Your task to perform on an android device: uninstall "Microsoft Authenticator" Image 0: 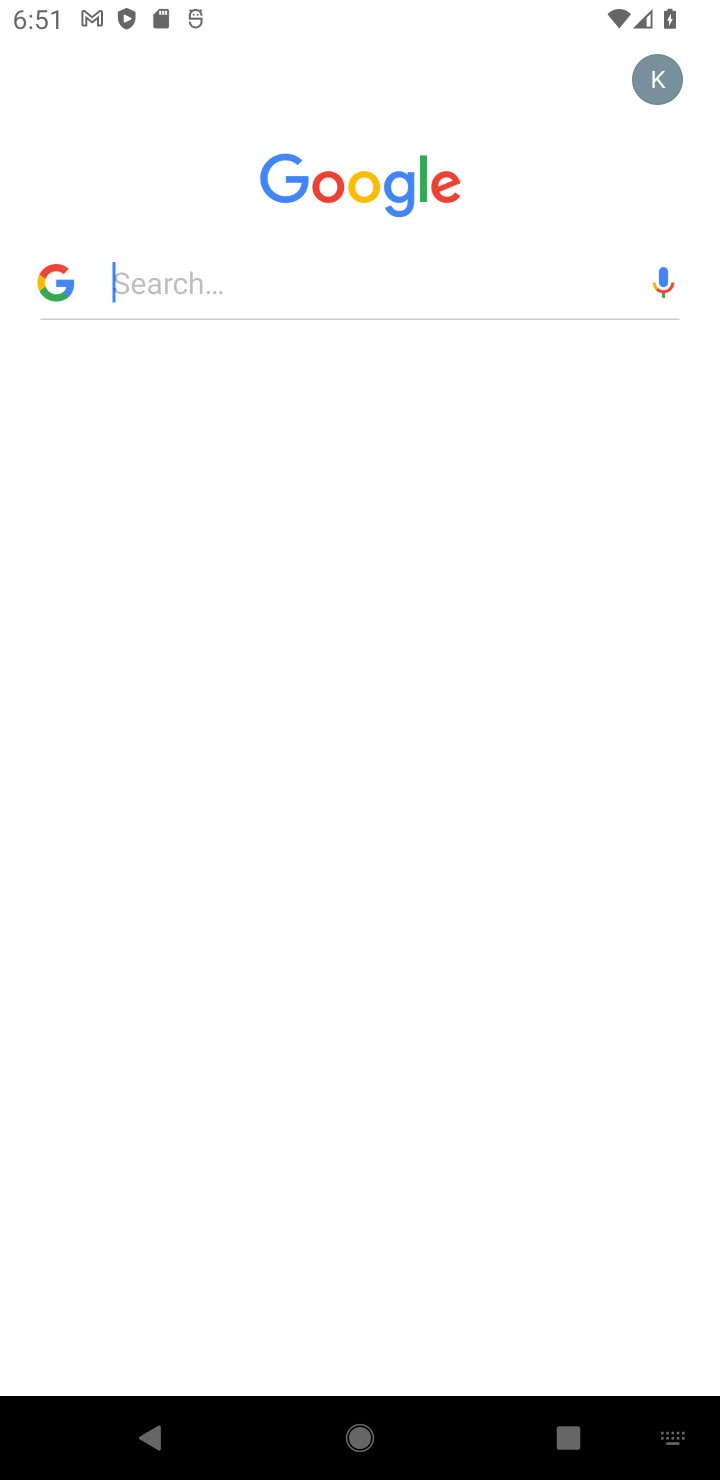
Step 0: press home button
Your task to perform on an android device: uninstall "Microsoft Authenticator" Image 1: 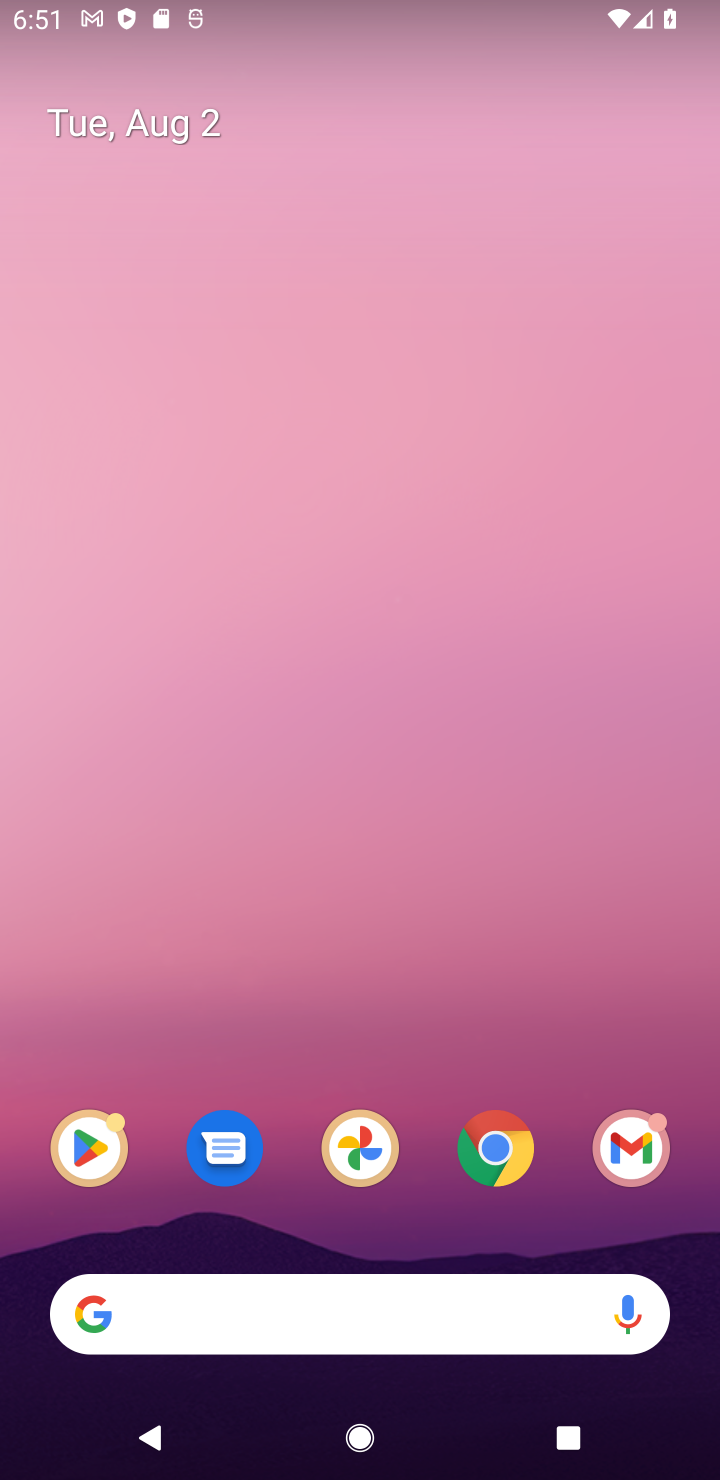
Step 1: drag from (694, 1237) to (378, 182)
Your task to perform on an android device: uninstall "Microsoft Authenticator" Image 2: 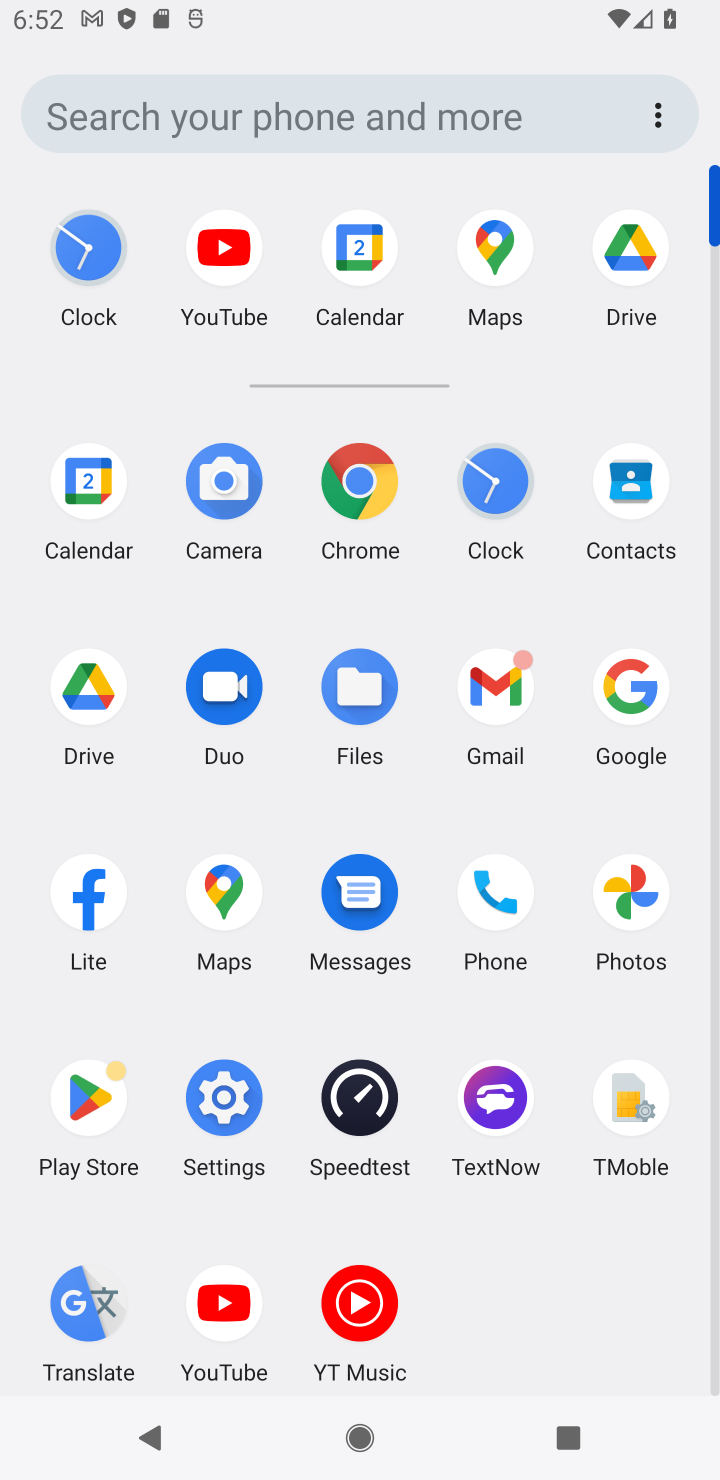
Step 2: click (81, 1101)
Your task to perform on an android device: uninstall "Microsoft Authenticator" Image 3: 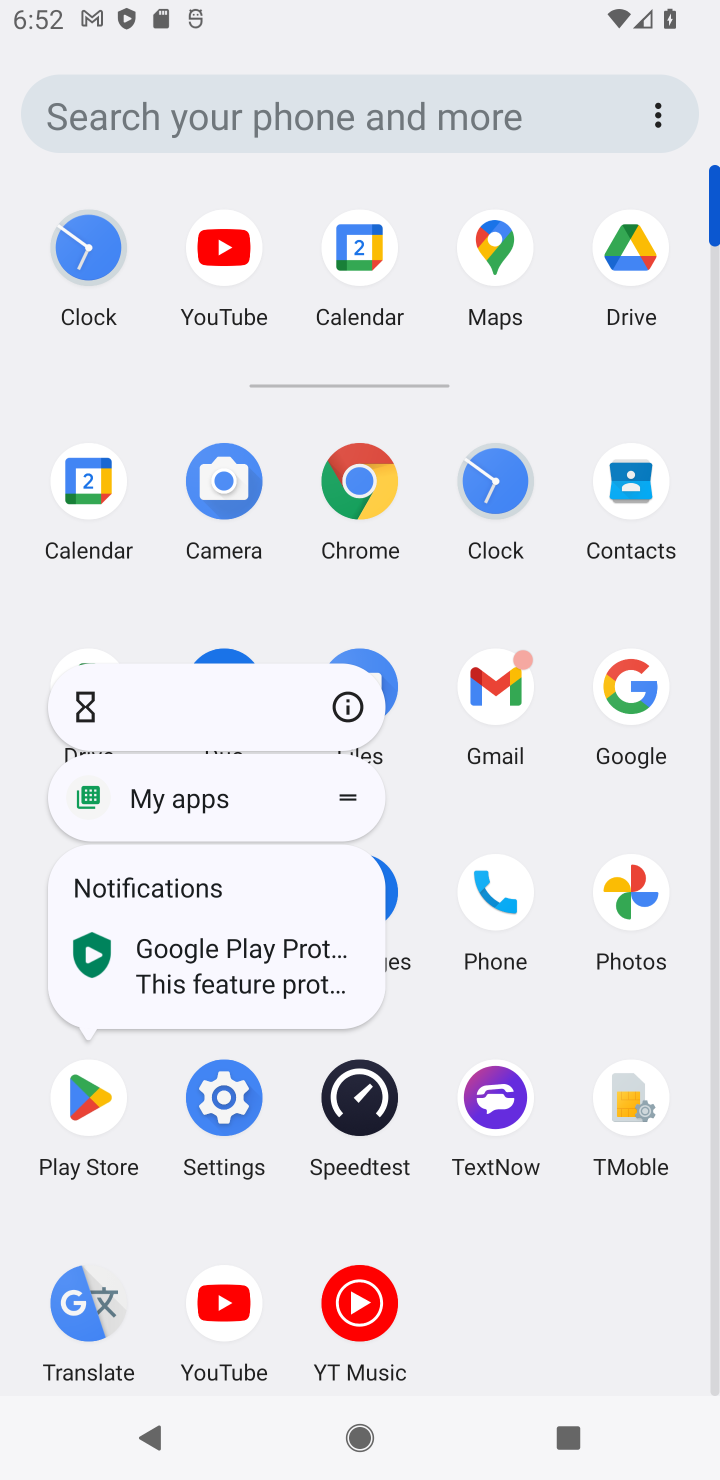
Step 3: click (81, 1101)
Your task to perform on an android device: uninstall "Microsoft Authenticator" Image 4: 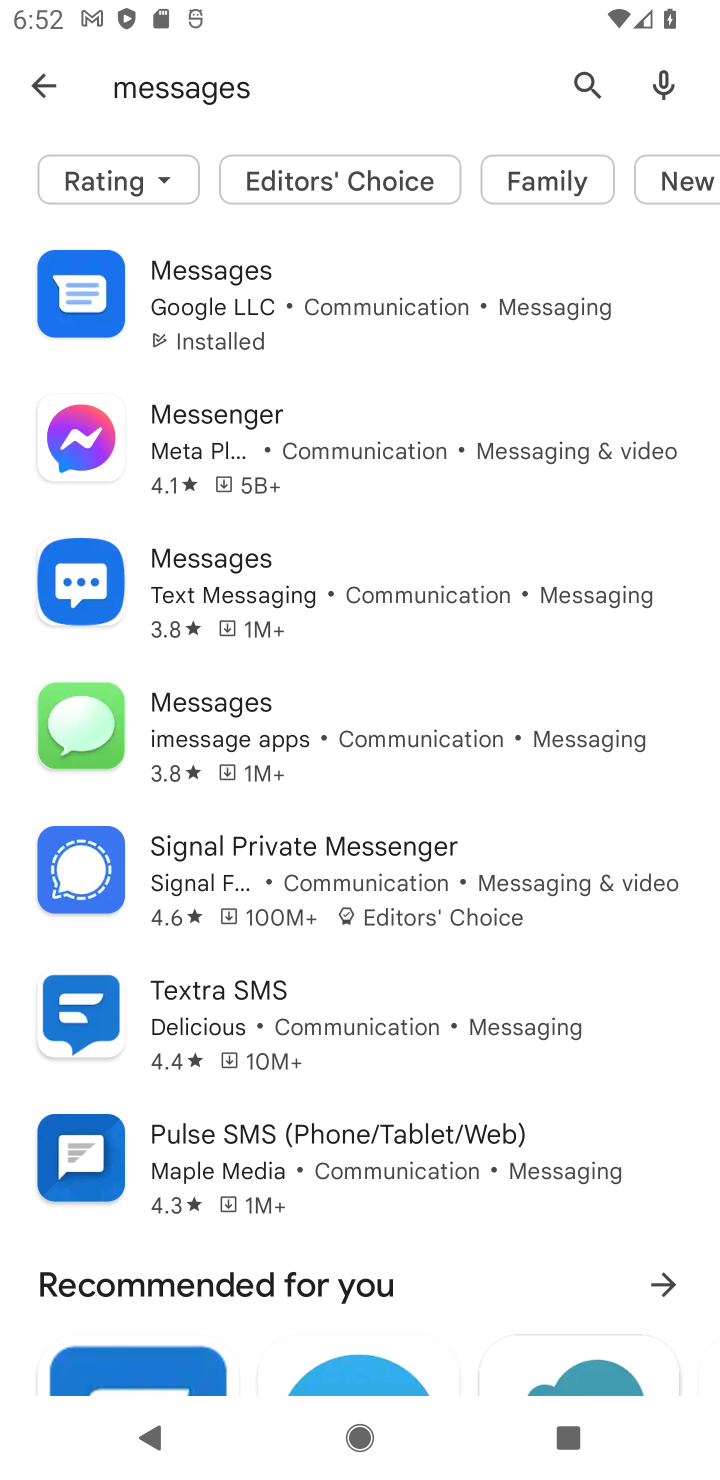
Step 4: press back button
Your task to perform on an android device: uninstall "Microsoft Authenticator" Image 5: 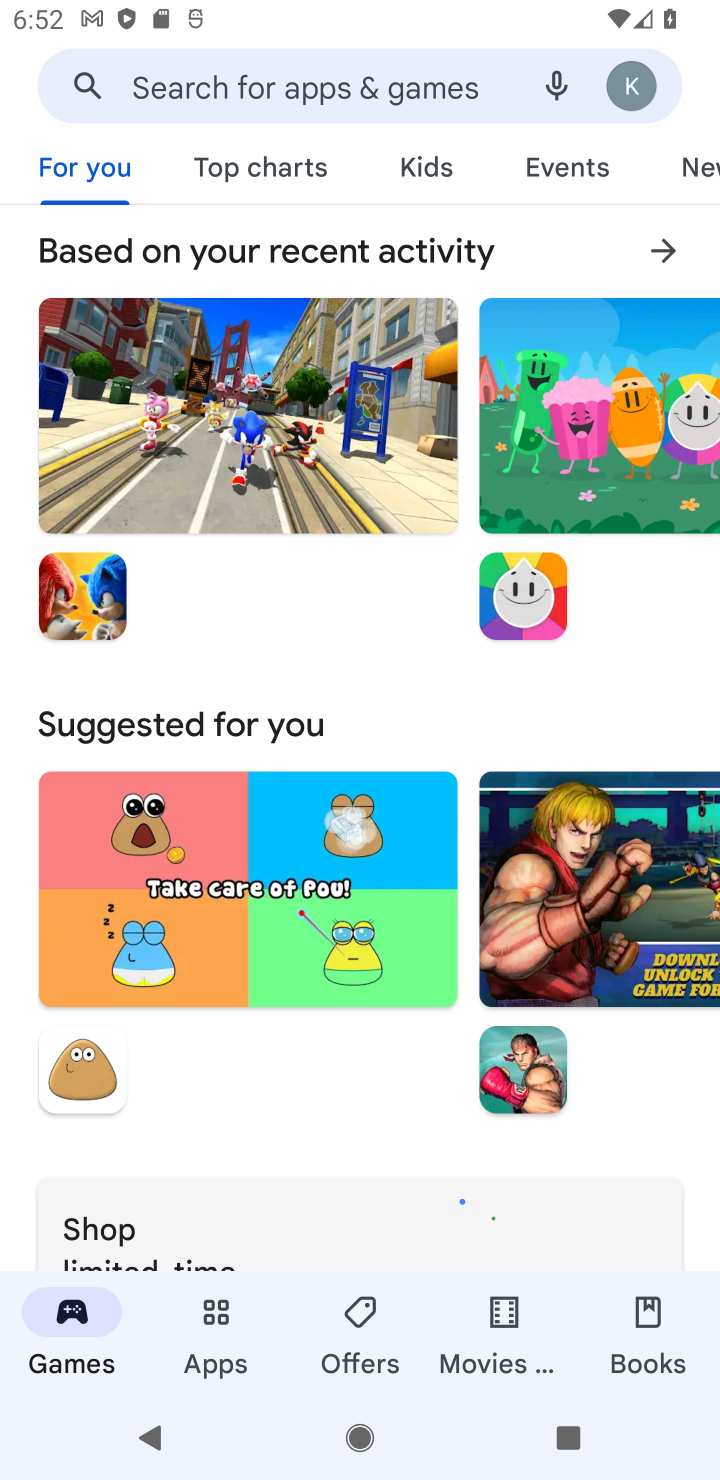
Step 5: click (241, 71)
Your task to perform on an android device: uninstall "Microsoft Authenticator" Image 6: 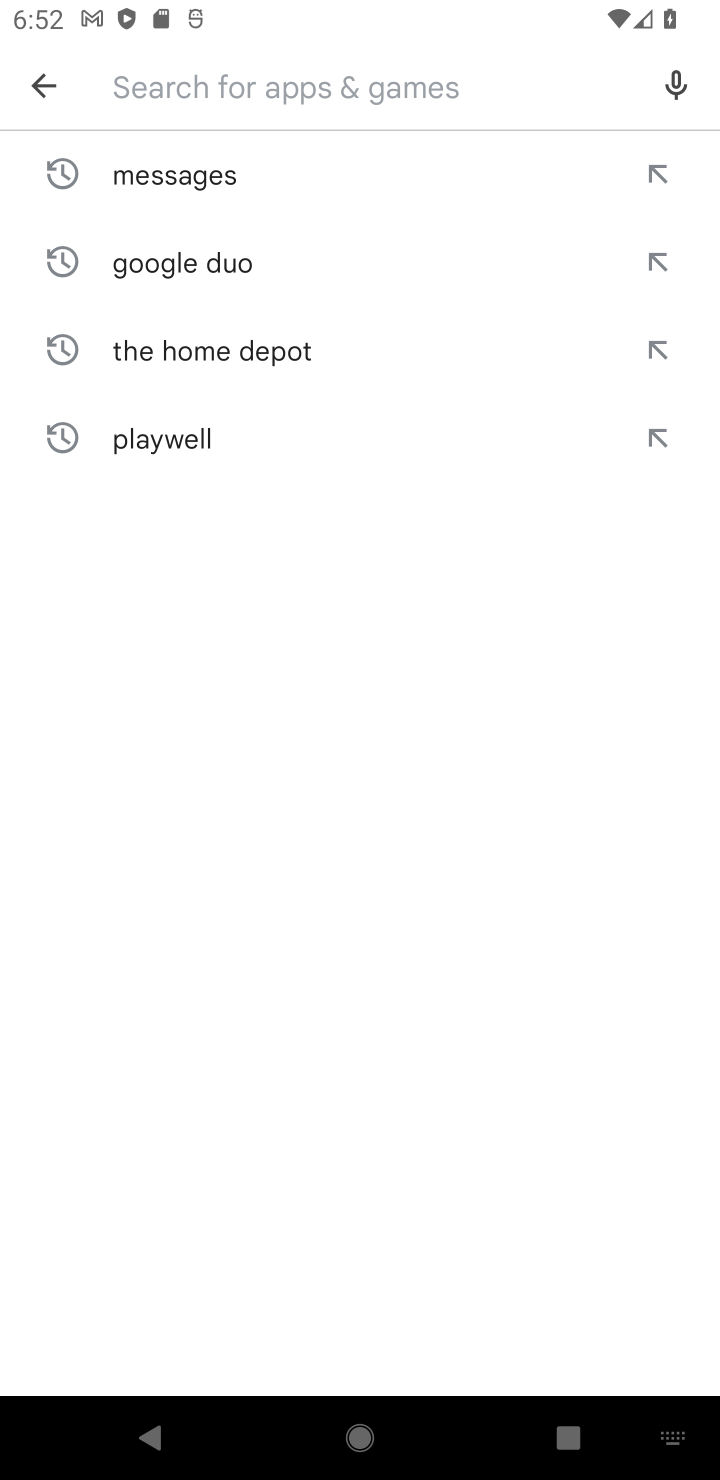
Step 6: type "Microsoft Authenticator"
Your task to perform on an android device: uninstall "Microsoft Authenticator" Image 7: 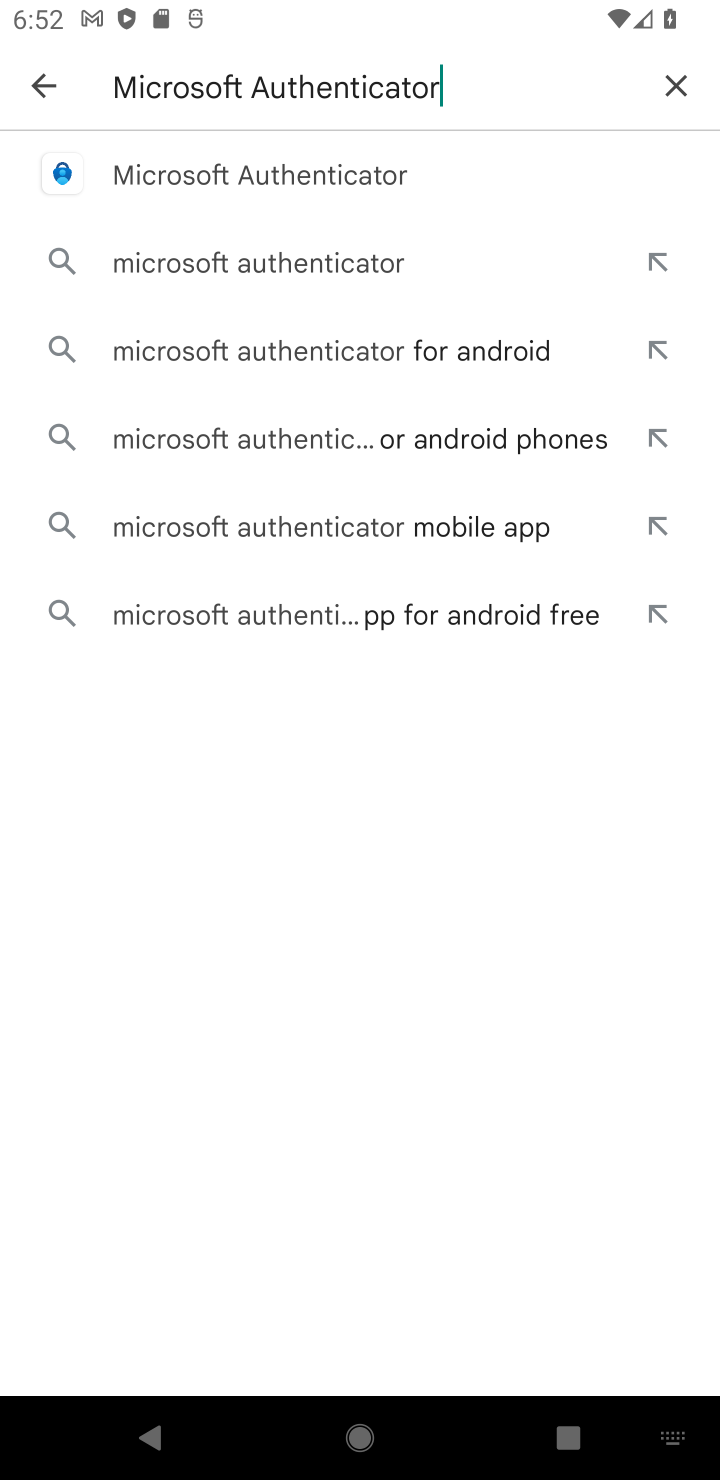
Step 7: click (273, 185)
Your task to perform on an android device: uninstall "Microsoft Authenticator" Image 8: 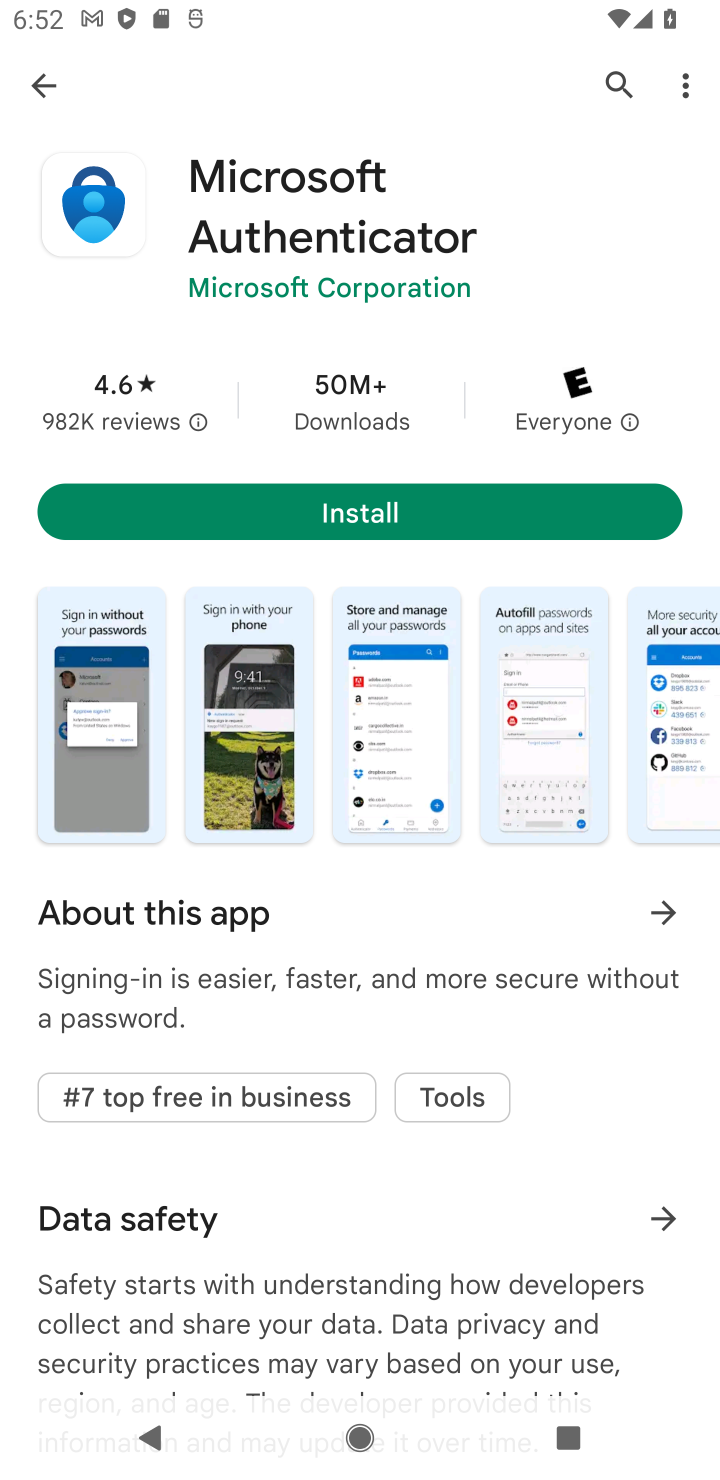
Step 8: task complete